Your task to perform on an android device: Turn off the flashlight Image 0: 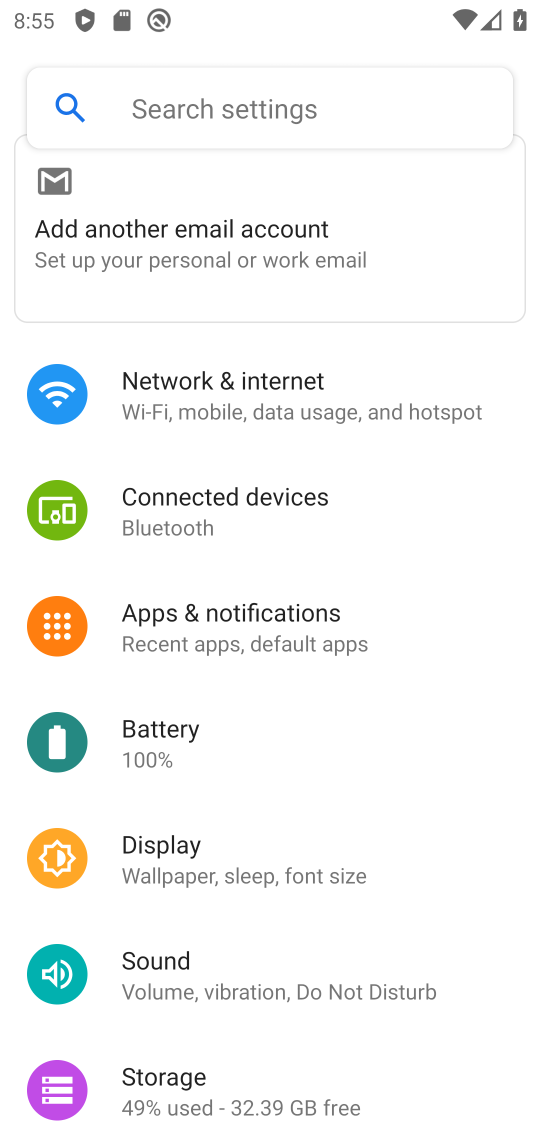
Step 0: click (363, 118)
Your task to perform on an android device: Turn off the flashlight Image 1: 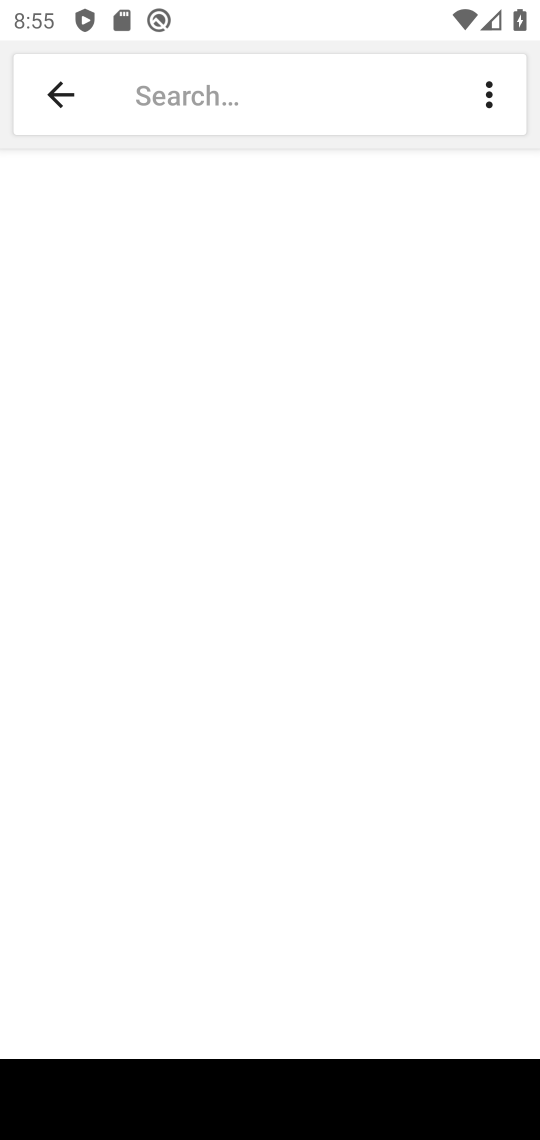
Step 1: type "Flashlight"
Your task to perform on an android device: Turn off the flashlight Image 2: 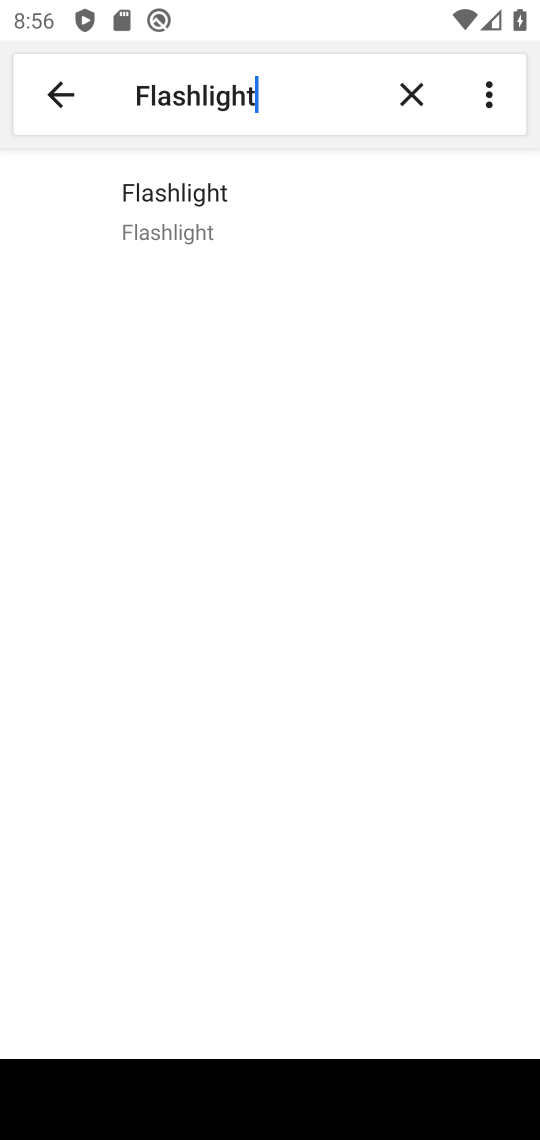
Step 2: click (179, 208)
Your task to perform on an android device: Turn off the flashlight Image 3: 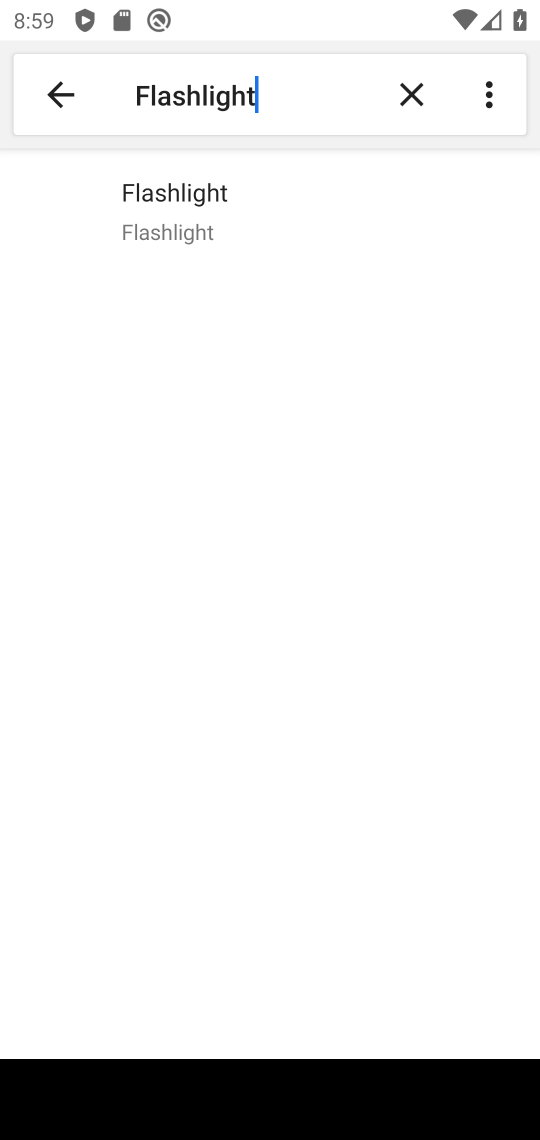
Step 3: task complete